Your task to perform on an android device: check android version Image 0: 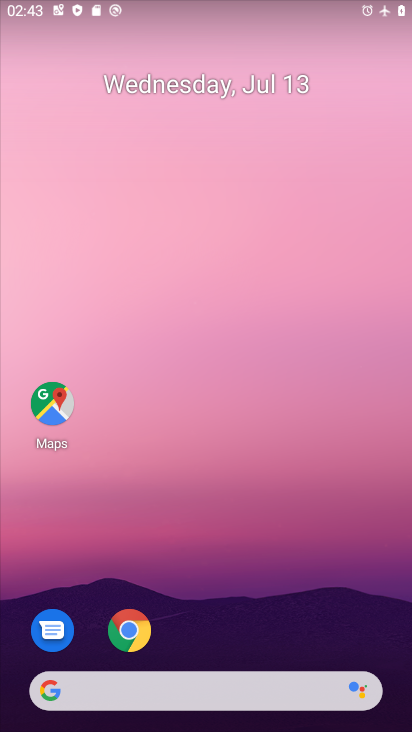
Step 0: drag from (188, 645) to (144, 197)
Your task to perform on an android device: check android version Image 1: 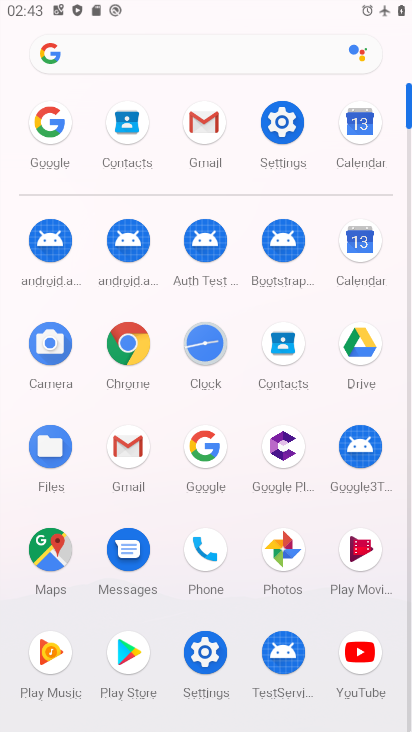
Step 1: click (277, 116)
Your task to perform on an android device: check android version Image 2: 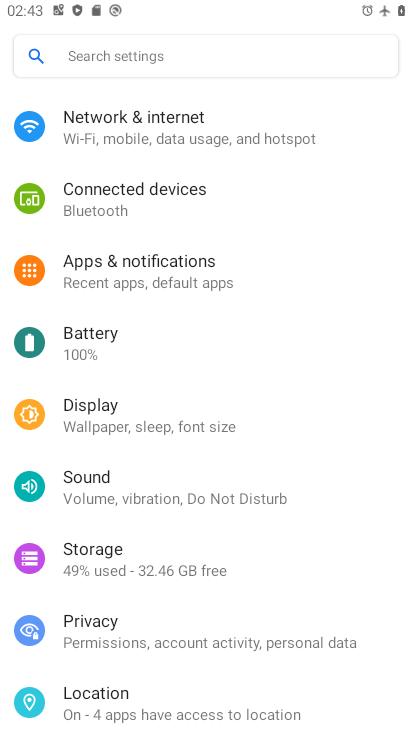
Step 2: drag from (214, 657) to (209, 188)
Your task to perform on an android device: check android version Image 3: 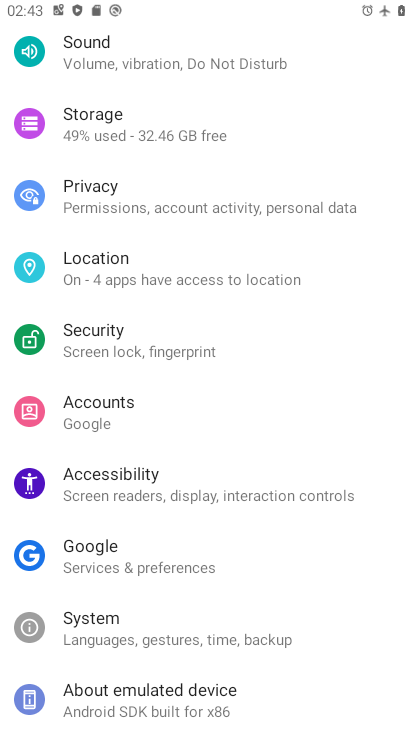
Step 3: click (132, 680)
Your task to perform on an android device: check android version Image 4: 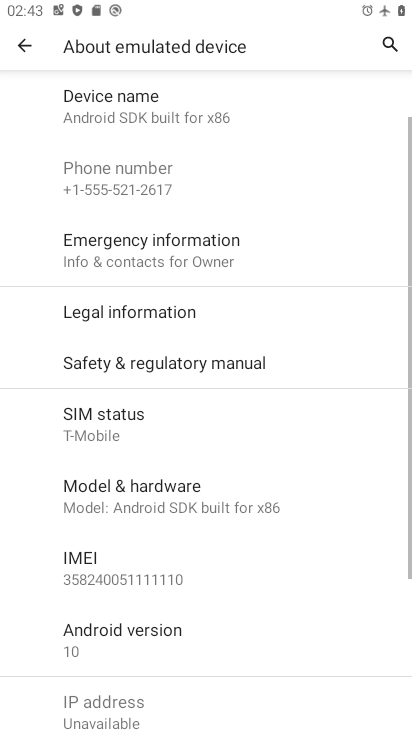
Step 4: click (156, 643)
Your task to perform on an android device: check android version Image 5: 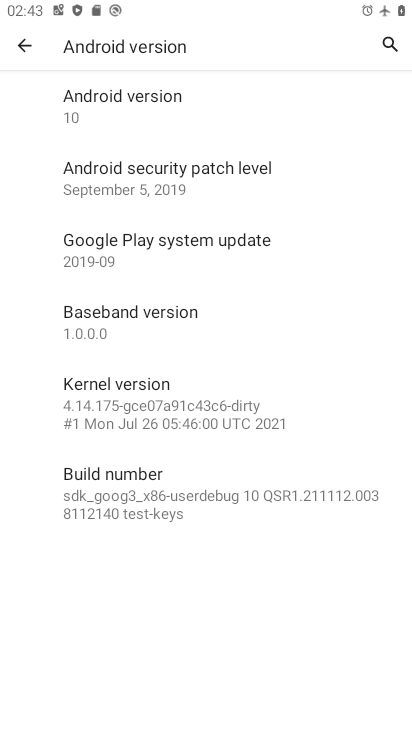
Step 5: click (132, 116)
Your task to perform on an android device: check android version Image 6: 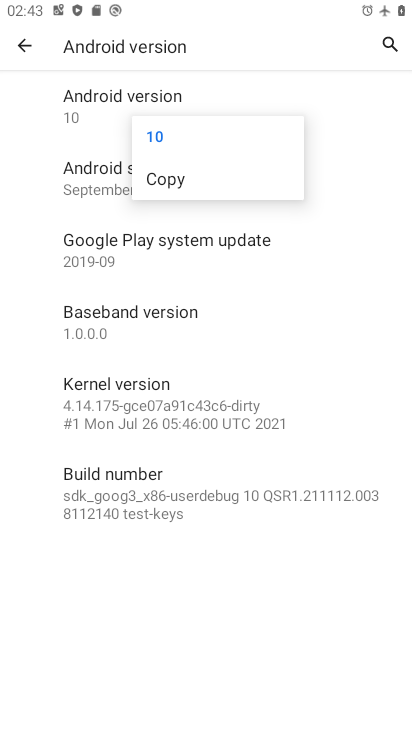
Step 6: task complete